Your task to perform on an android device: toggle javascript in the chrome app Image 0: 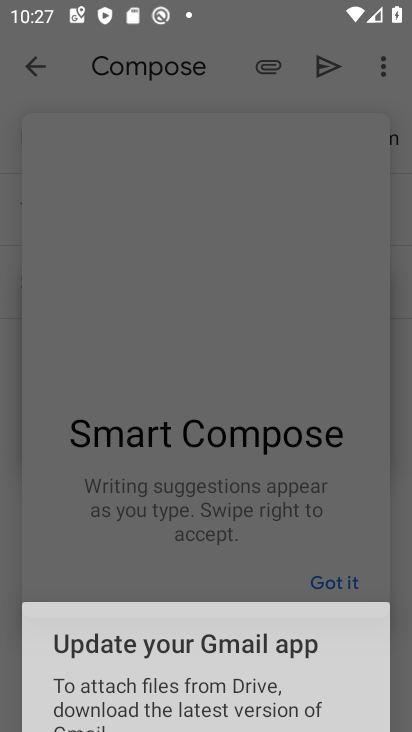
Step 0: press home button
Your task to perform on an android device: toggle javascript in the chrome app Image 1: 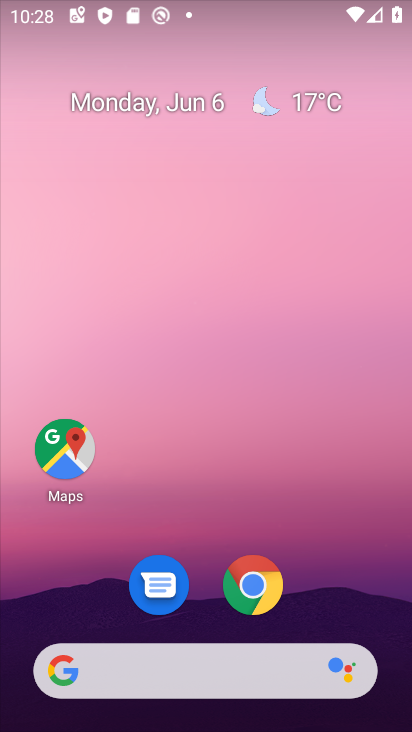
Step 1: click (267, 577)
Your task to perform on an android device: toggle javascript in the chrome app Image 2: 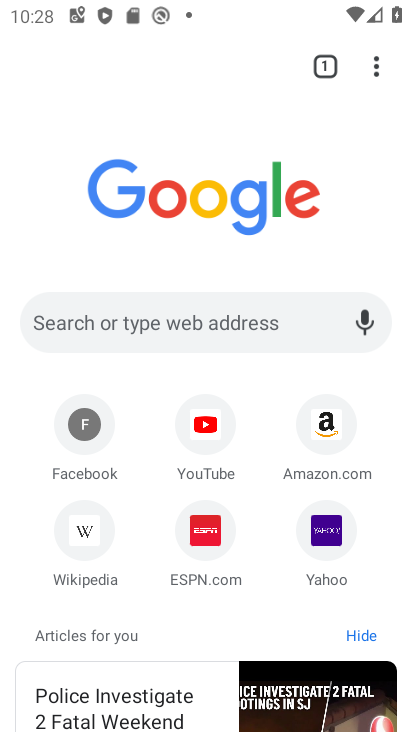
Step 2: click (375, 74)
Your task to perform on an android device: toggle javascript in the chrome app Image 3: 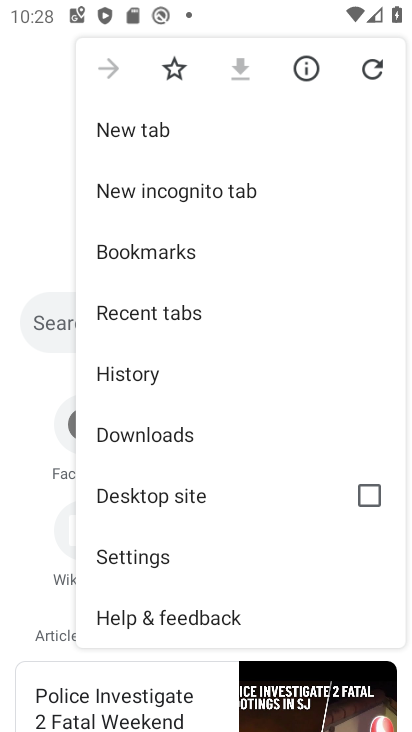
Step 3: click (209, 554)
Your task to perform on an android device: toggle javascript in the chrome app Image 4: 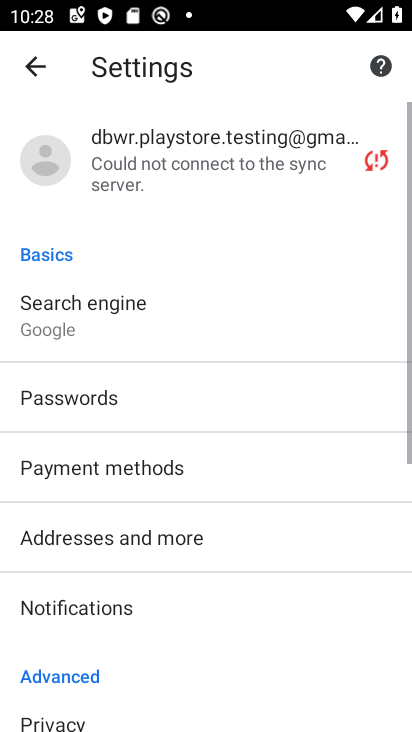
Step 4: drag from (234, 491) to (241, 283)
Your task to perform on an android device: toggle javascript in the chrome app Image 5: 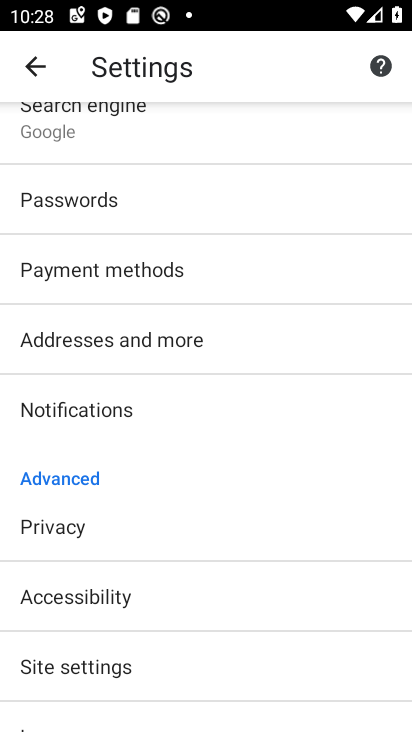
Step 5: click (182, 654)
Your task to perform on an android device: toggle javascript in the chrome app Image 6: 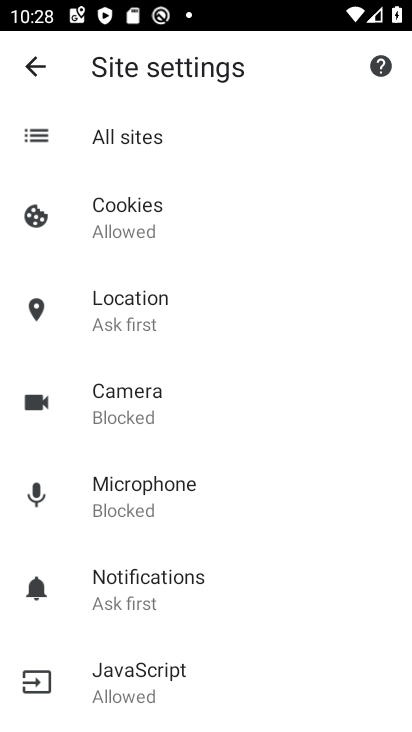
Step 6: click (195, 685)
Your task to perform on an android device: toggle javascript in the chrome app Image 7: 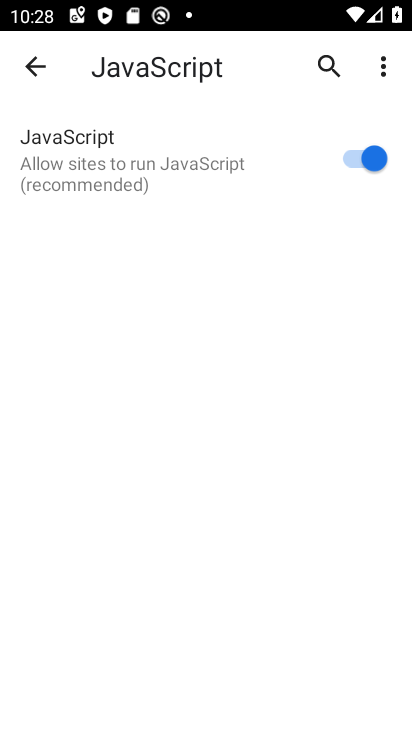
Step 7: click (360, 152)
Your task to perform on an android device: toggle javascript in the chrome app Image 8: 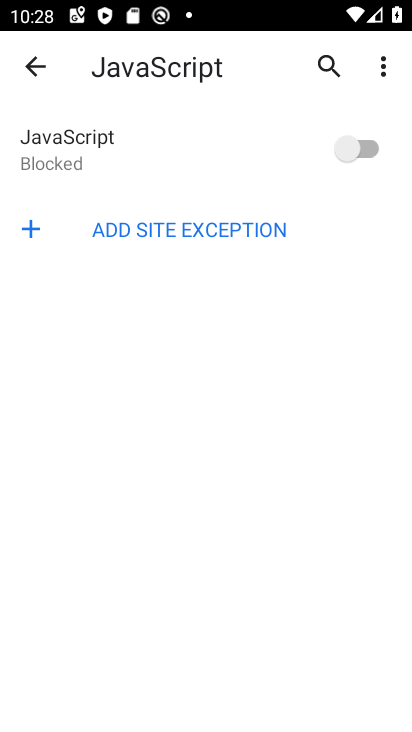
Step 8: task complete